Your task to perform on an android device: Go to eBay Image 0: 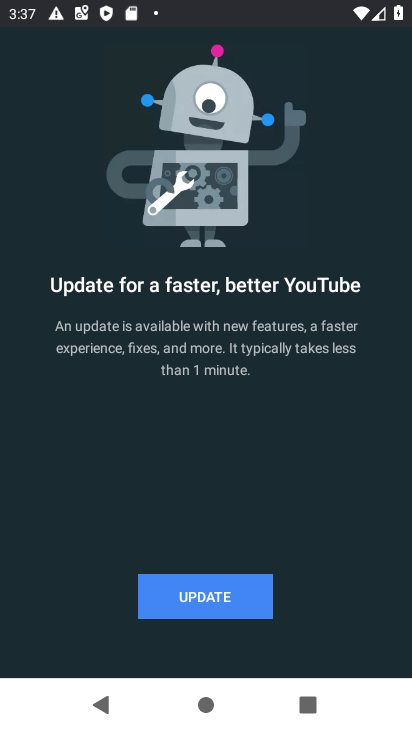
Step 0: press home button
Your task to perform on an android device: Go to eBay Image 1: 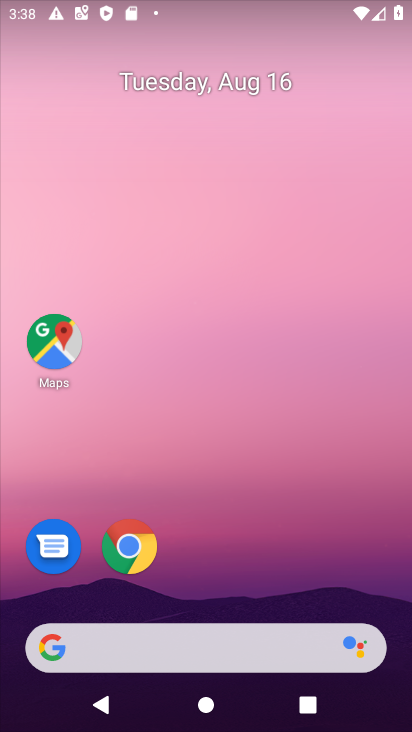
Step 1: drag from (344, 575) to (374, 103)
Your task to perform on an android device: Go to eBay Image 2: 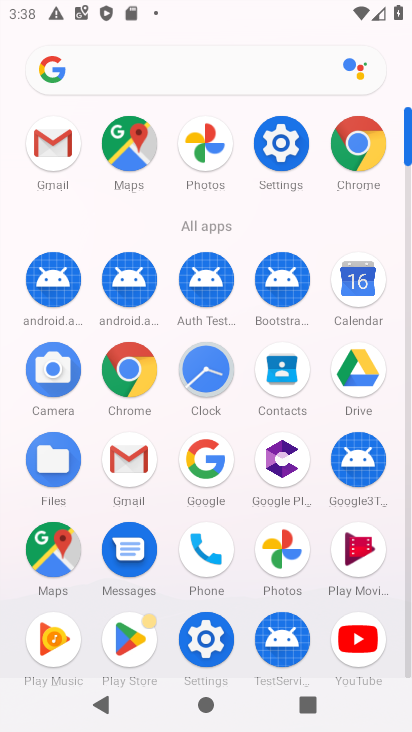
Step 2: click (129, 363)
Your task to perform on an android device: Go to eBay Image 3: 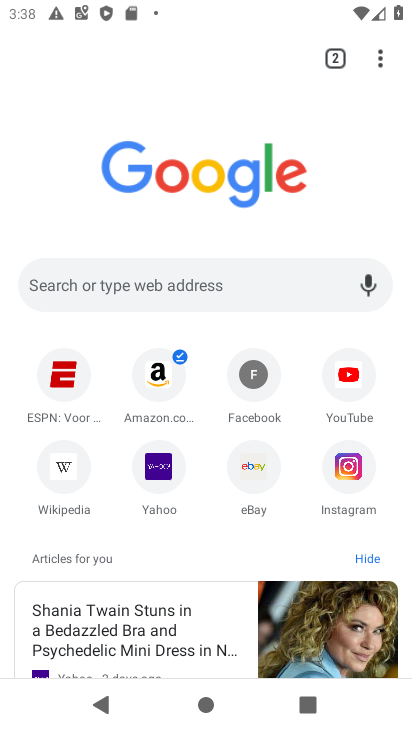
Step 3: click (216, 285)
Your task to perform on an android device: Go to eBay Image 4: 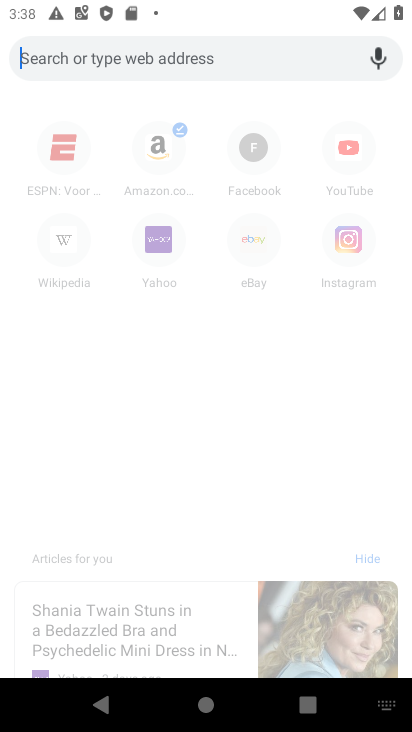
Step 4: type "ebay"
Your task to perform on an android device: Go to eBay Image 5: 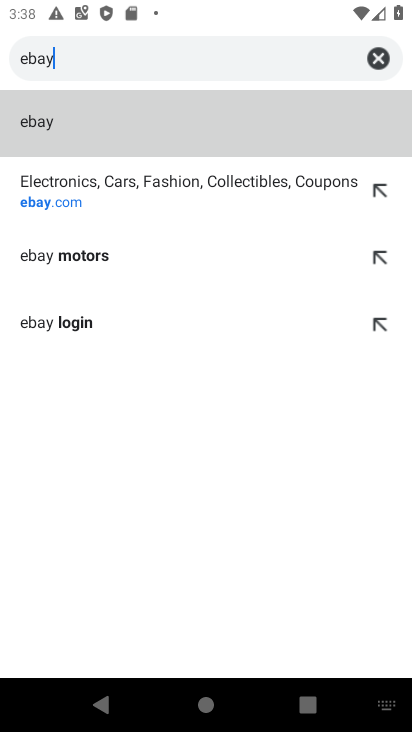
Step 5: click (343, 127)
Your task to perform on an android device: Go to eBay Image 6: 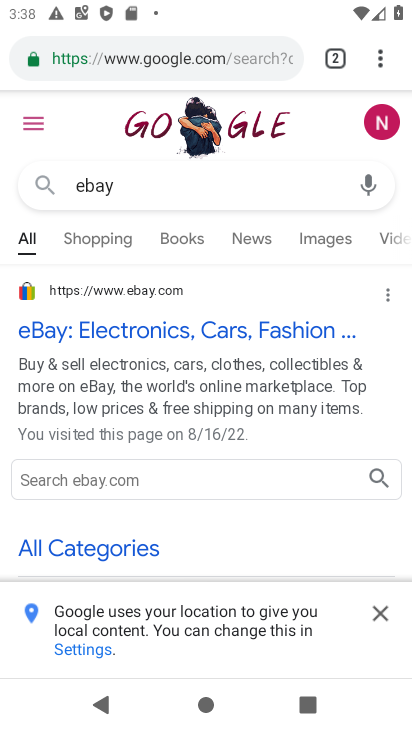
Step 6: task complete